Your task to perform on an android device: Open Android settings Image 0: 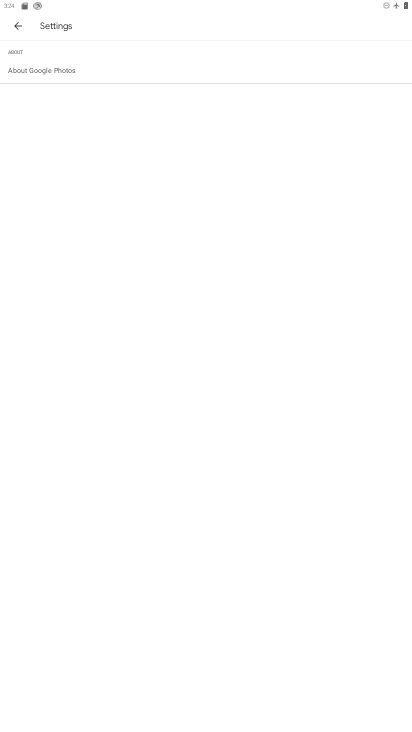
Step 0: press home button
Your task to perform on an android device: Open Android settings Image 1: 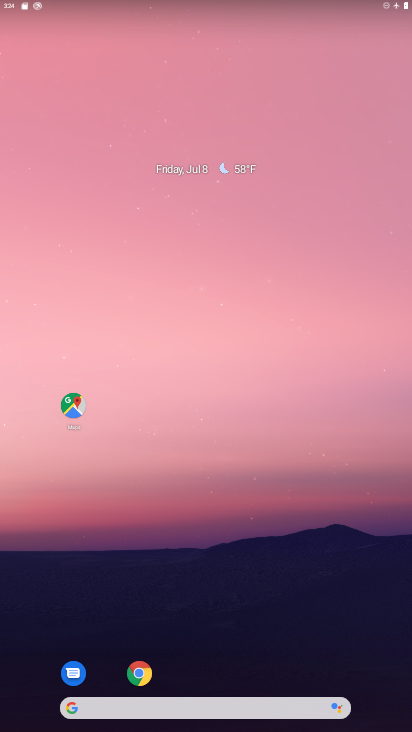
Step 1: drag from (223, 711) to (261, 459)
Your task to perform on an android device: Open Android settings Image 2: 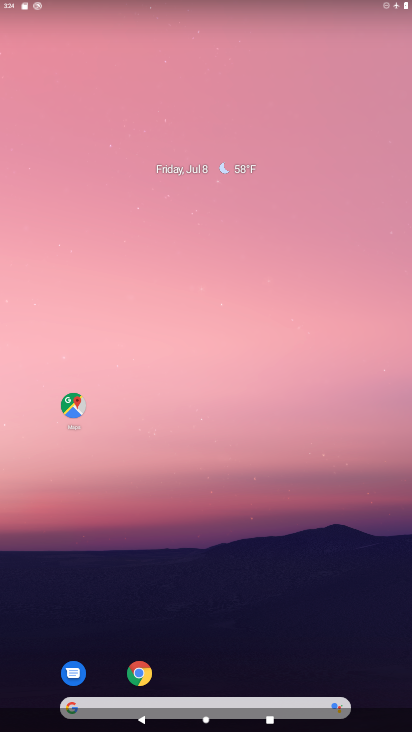
Step 2: drag from (234, 693) to (309, 292)
Your task to perform on an android device: Open Android settings Image 3: 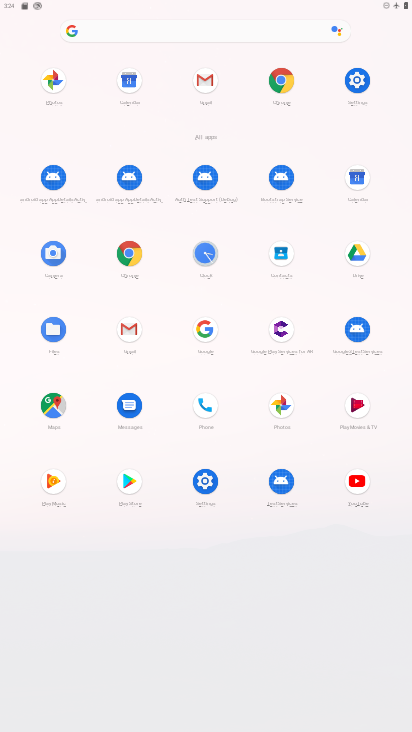
Step 3: click (366, 81)
Your task to perform on an android device: Open Android settings Image 4: 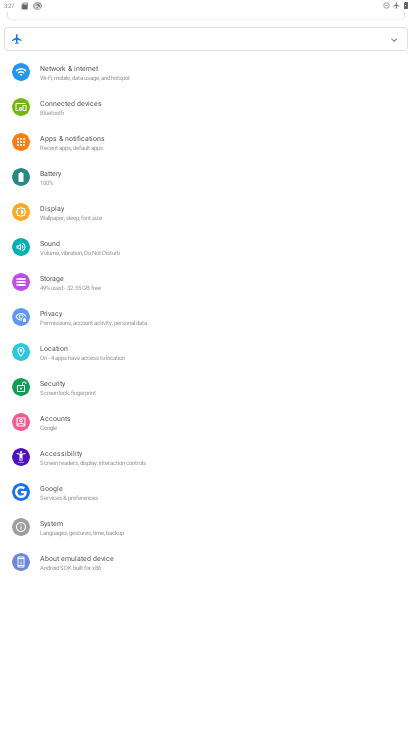
Step 4: task complete